Your task to perform on an android device: turn off location Image 0: 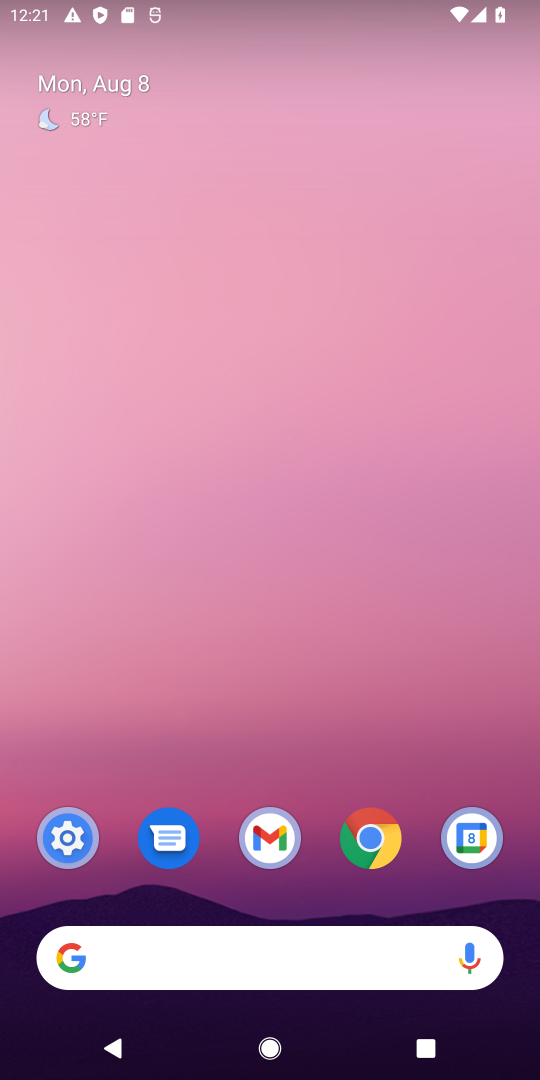
Step 0: press home button
Your task to perform on an android device: turn off location Image 1: 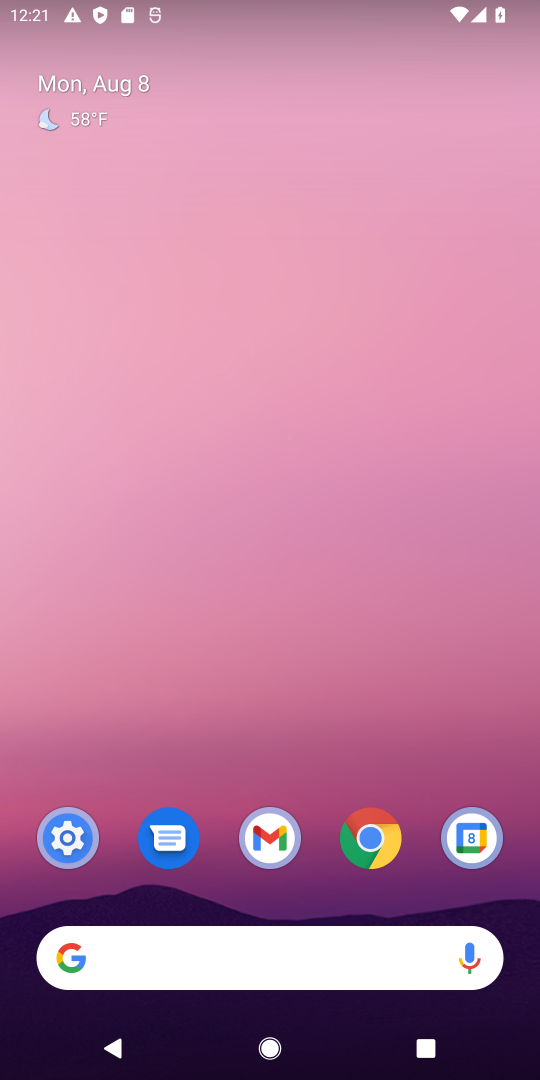
Step 1: click (67, 830)
Your task to perform on an android device: turn off location Image 2: 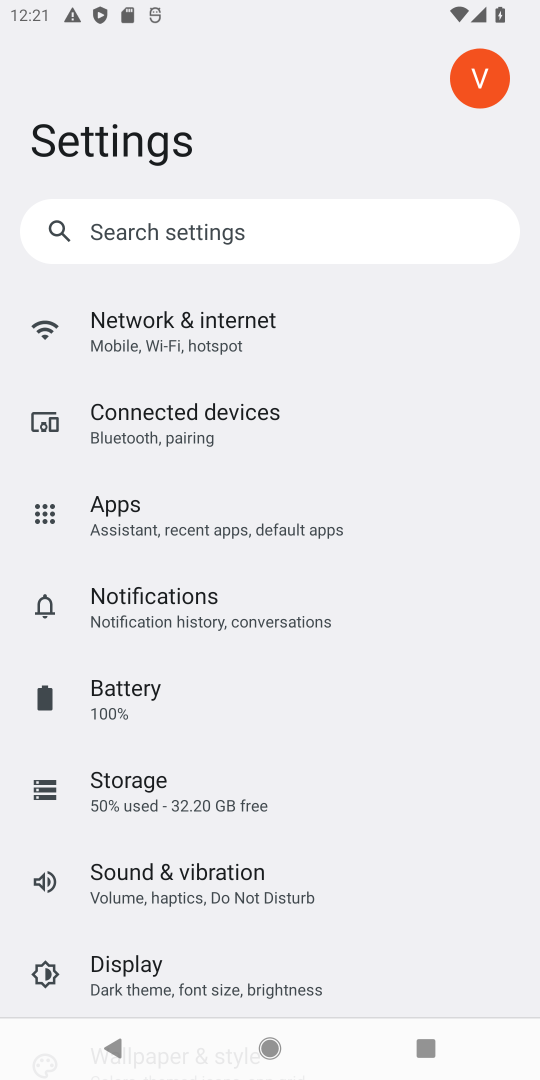
Step 2: drag from (420, 830) to (400, 186)
Your task to perform on an android device: turn off location Image 3: 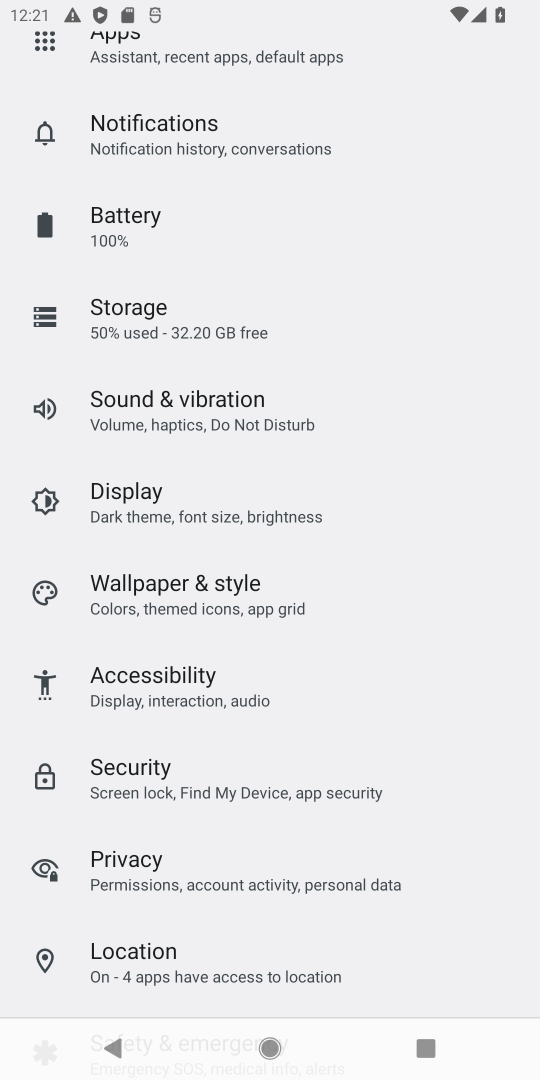
Step 3: drag from (462, 916) to (483, 862)
Your task to perform on an android device: turn off location Image 4: 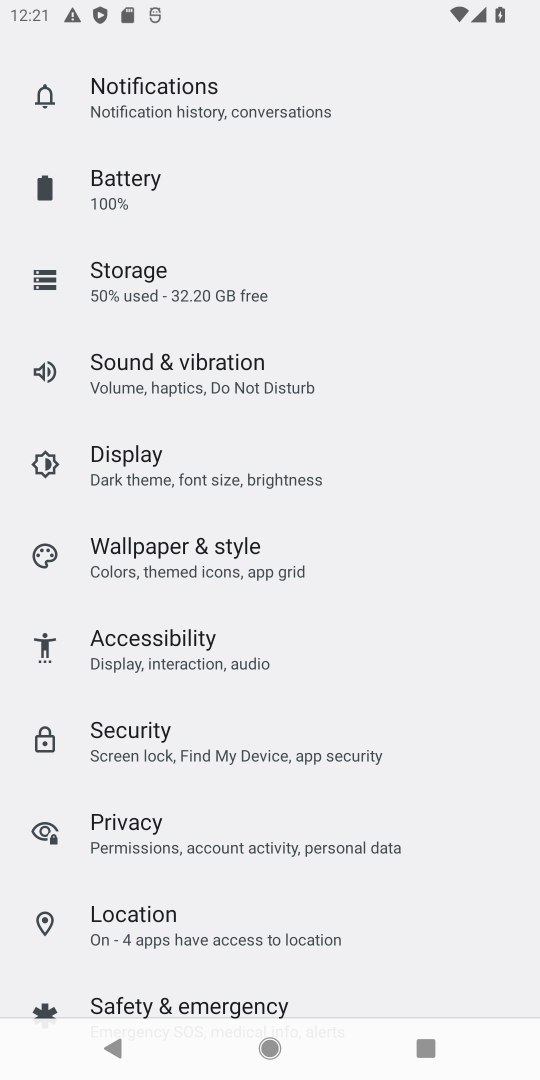
Step 4: click (193, 931)
Your task to perform on an android device: turn off location Image 5: 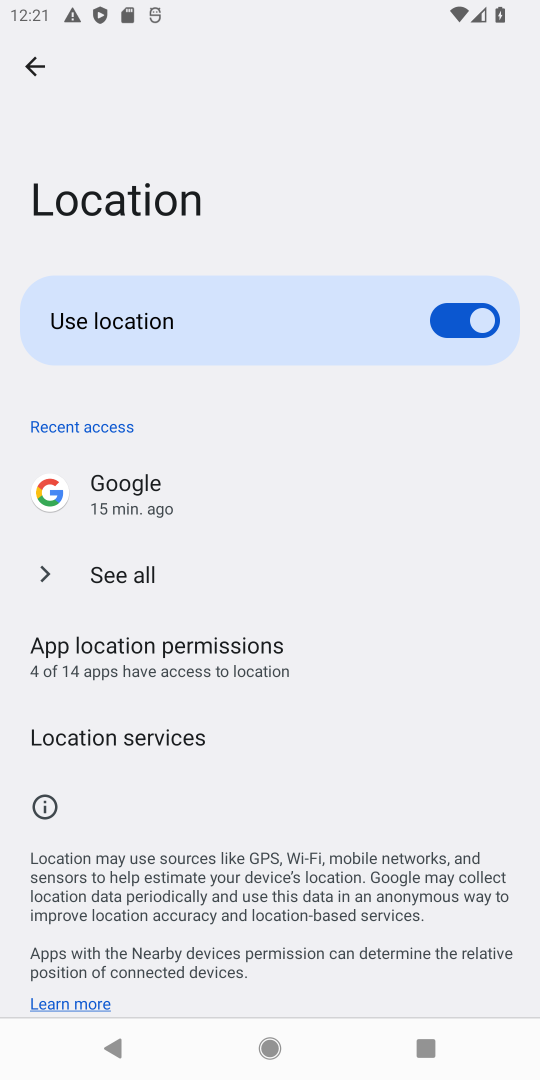
Step 5: click (479, 316)
Your task to perform on an android device: turn off location Image 6: 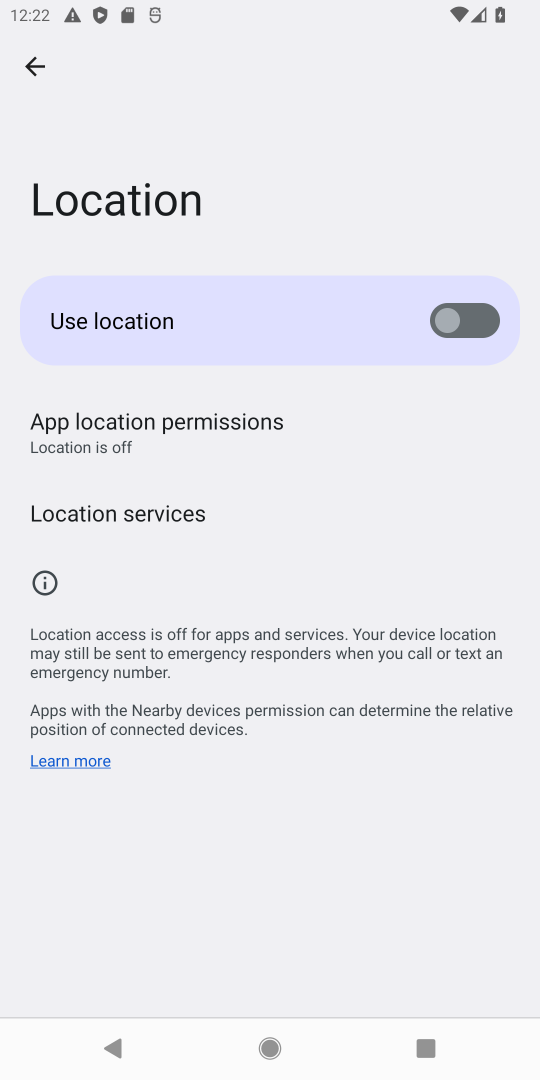
Step 6: task complete